Your task to perform on an android device: Open display settings Image 0: 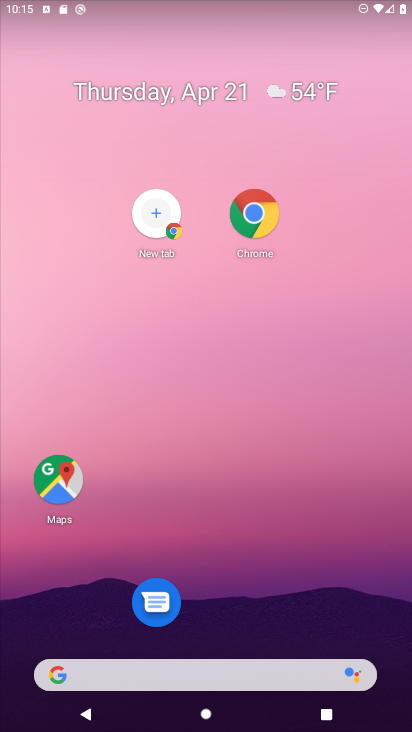
Step 0: drag from (206, 609) to (227, 29)
Your task to perform on an android device: Open display settings Image 1: 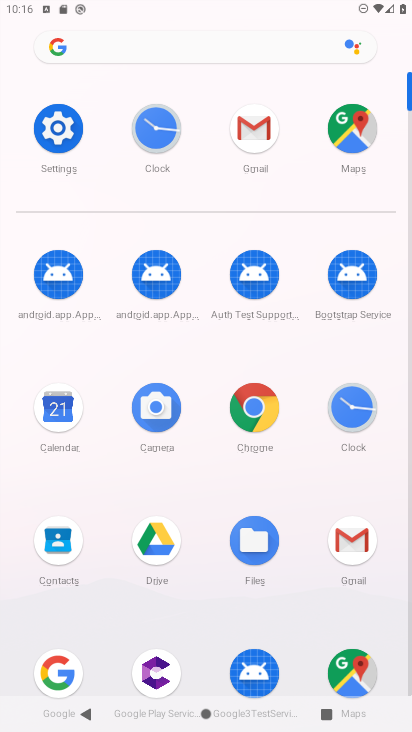
Step 1: click (49, 129)
Your task to perform on an android device: Open display settings Image 2: 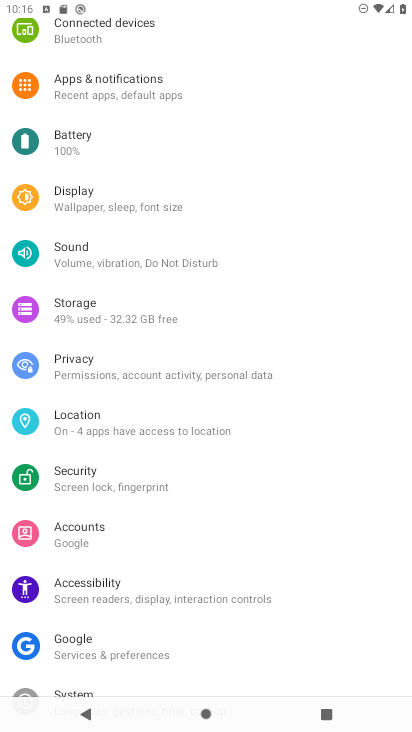
Step 2: click (277, 190)
Your task to perform on an android device: Open display settings Image 3: 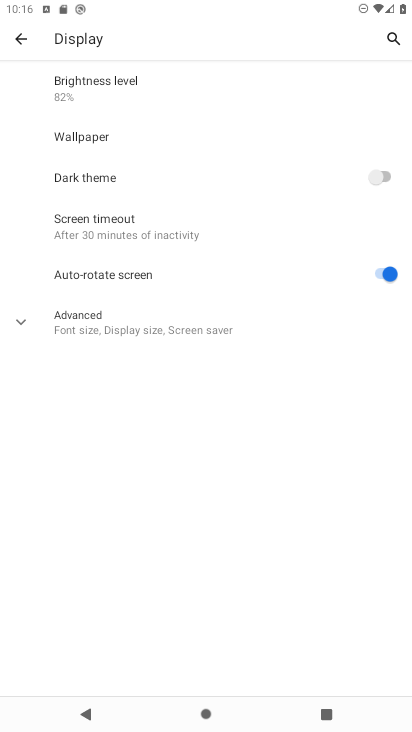
Step 3: task complete